Your task to perform on an android device: install app "Expedia: Hotels, Flights & Car" Image 0: 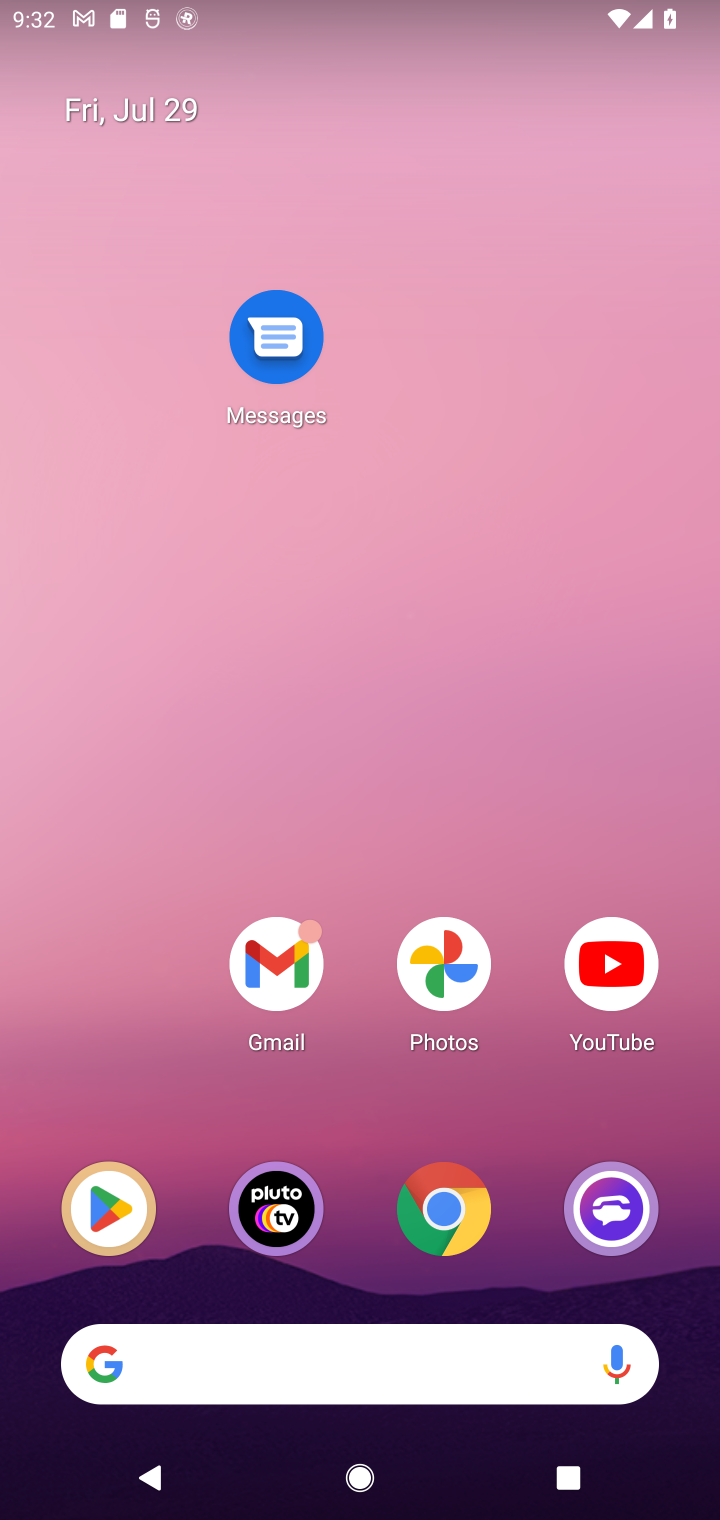
Step 0: press home button
Your task to perform on an android device: install app "Expedia: Hotels, Flights & Car" Image 1: 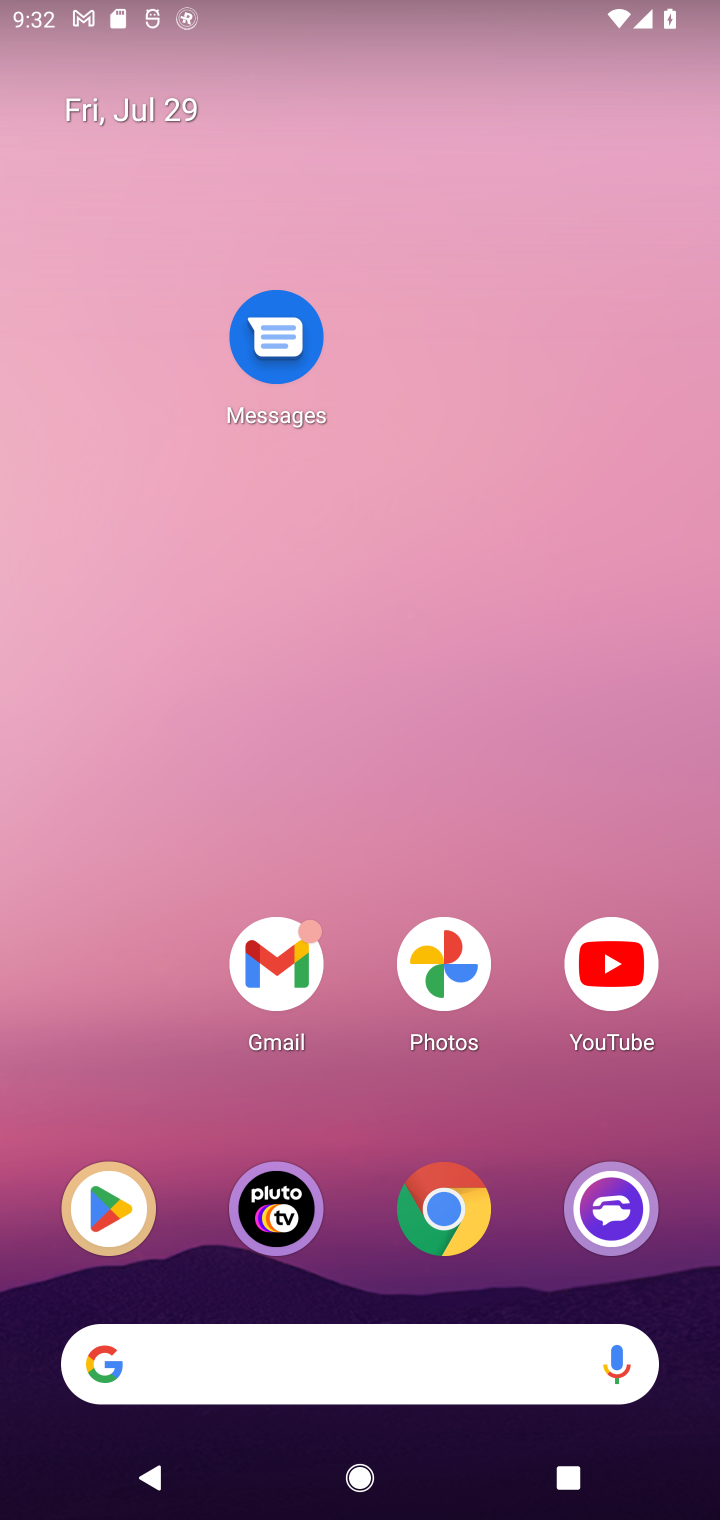
Step 1: drag from (243, 1363) to (444, 278)
Your task to perform on an android device: install app "Expedia: Hotels, Flights & Car" Image 2: 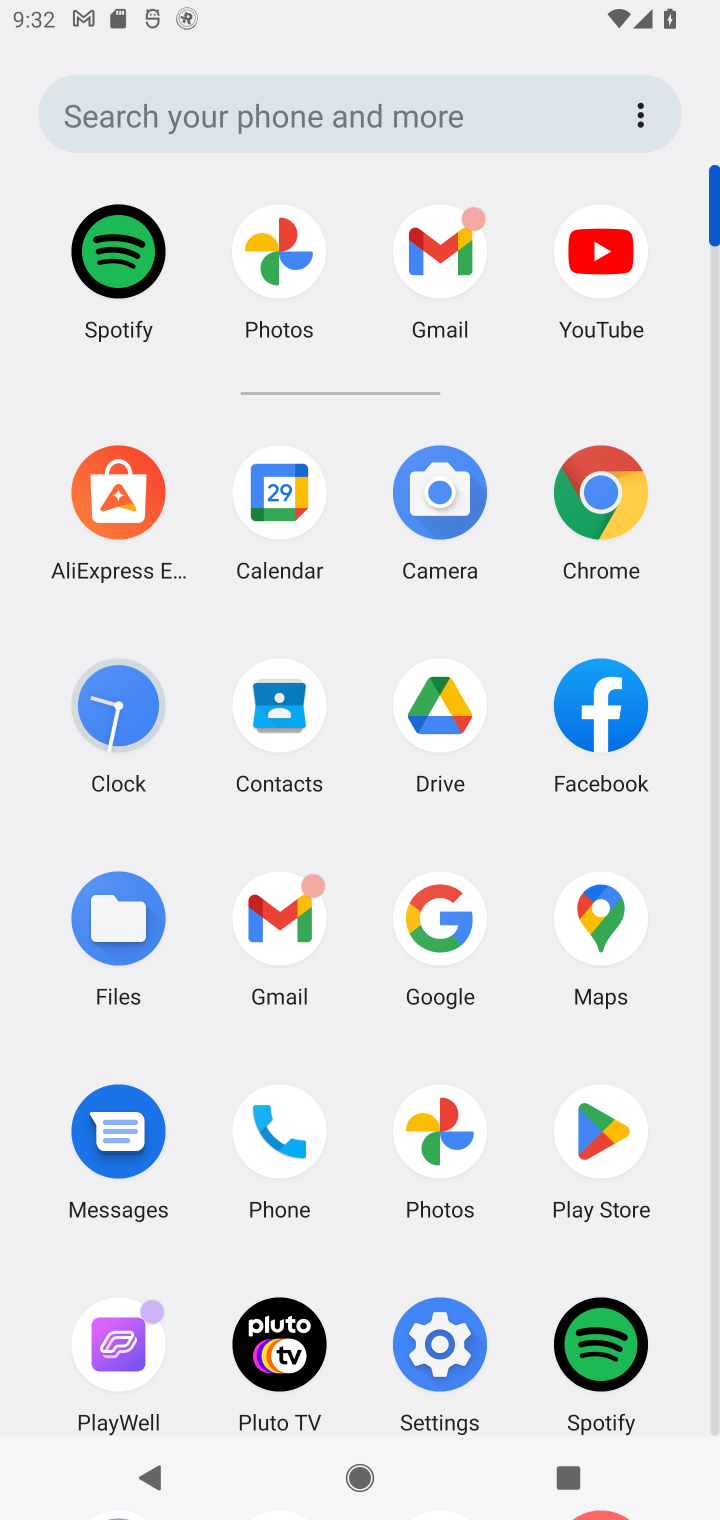
Step 2: drag from (345, 1288) to (360, 912)
Your task to perform on an android device: install app "Expedia: Hotels, Flights & Car" Image 3: 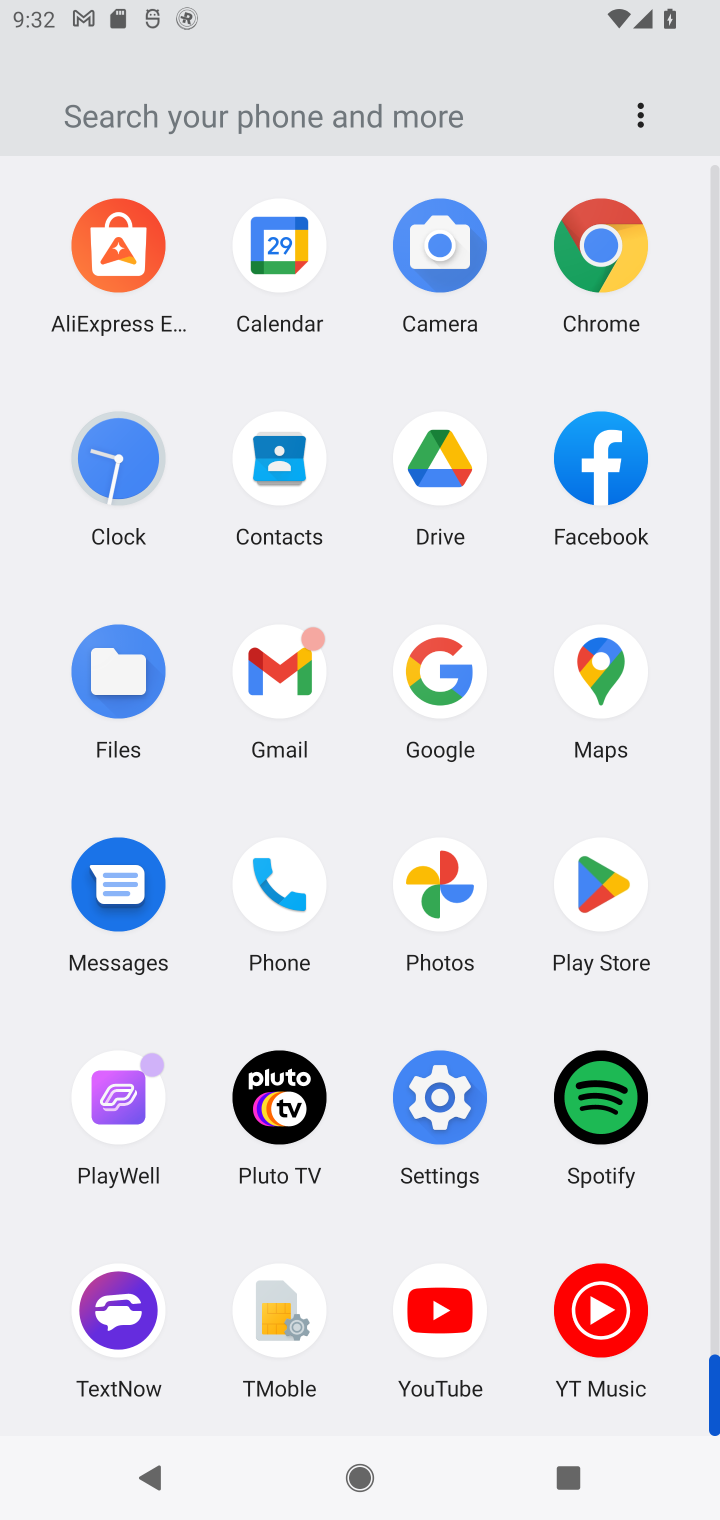
Step 3: click (601, 885)
Your task to perform on an android device: install app "Expedia: Hotels, Flights & Car" Image 4: 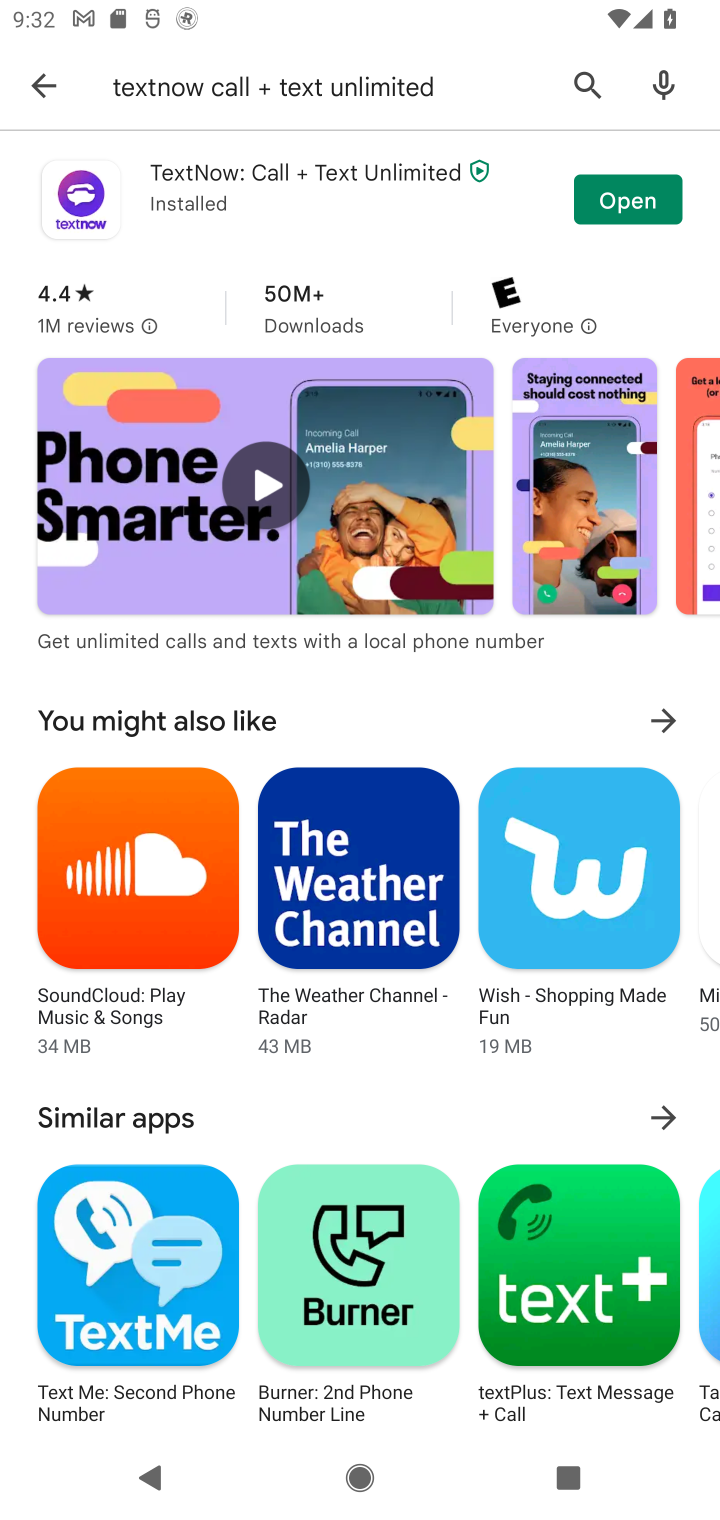
Step 4: click (583, 83)
Your task to perform on an android device: install app "Expedia: Hotels, Flights & Car" Image 5: 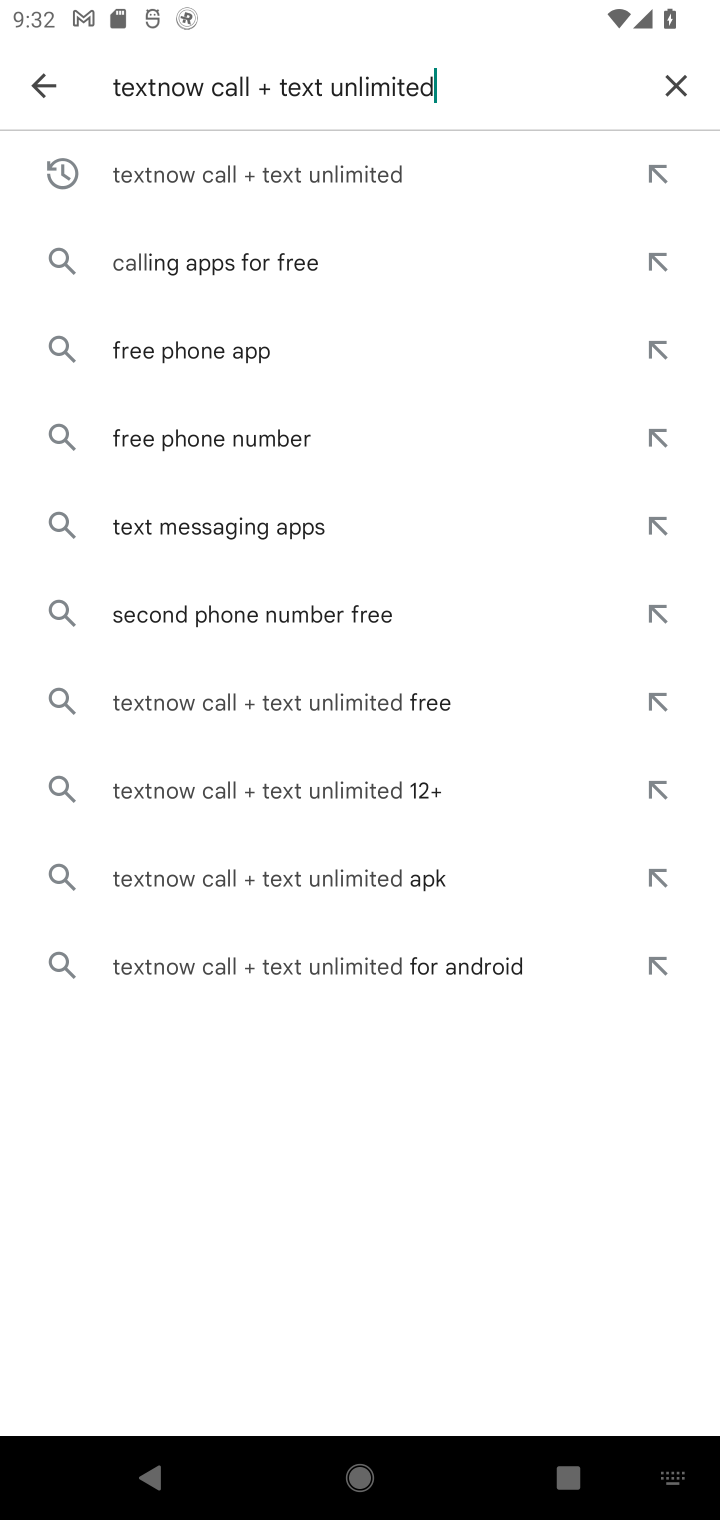
Step 5: click (675, 87)
Your task to perform on an android device: install app "Expedia: Hotels, Flights & Car" Image 6: 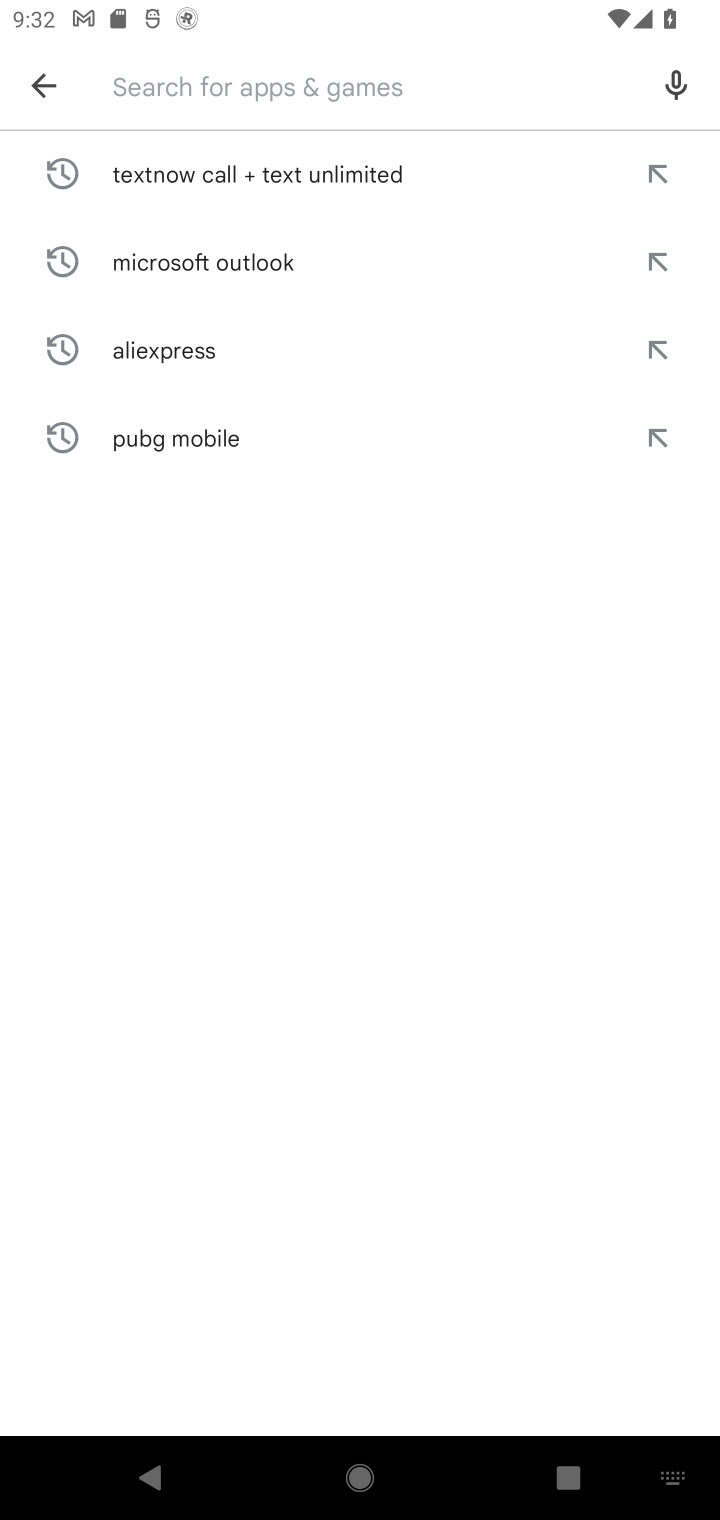
Step 6: click (221, 80)
Your task to perform on an android device: install app "Expedia: Hotels, Flights & Car" Image 7: 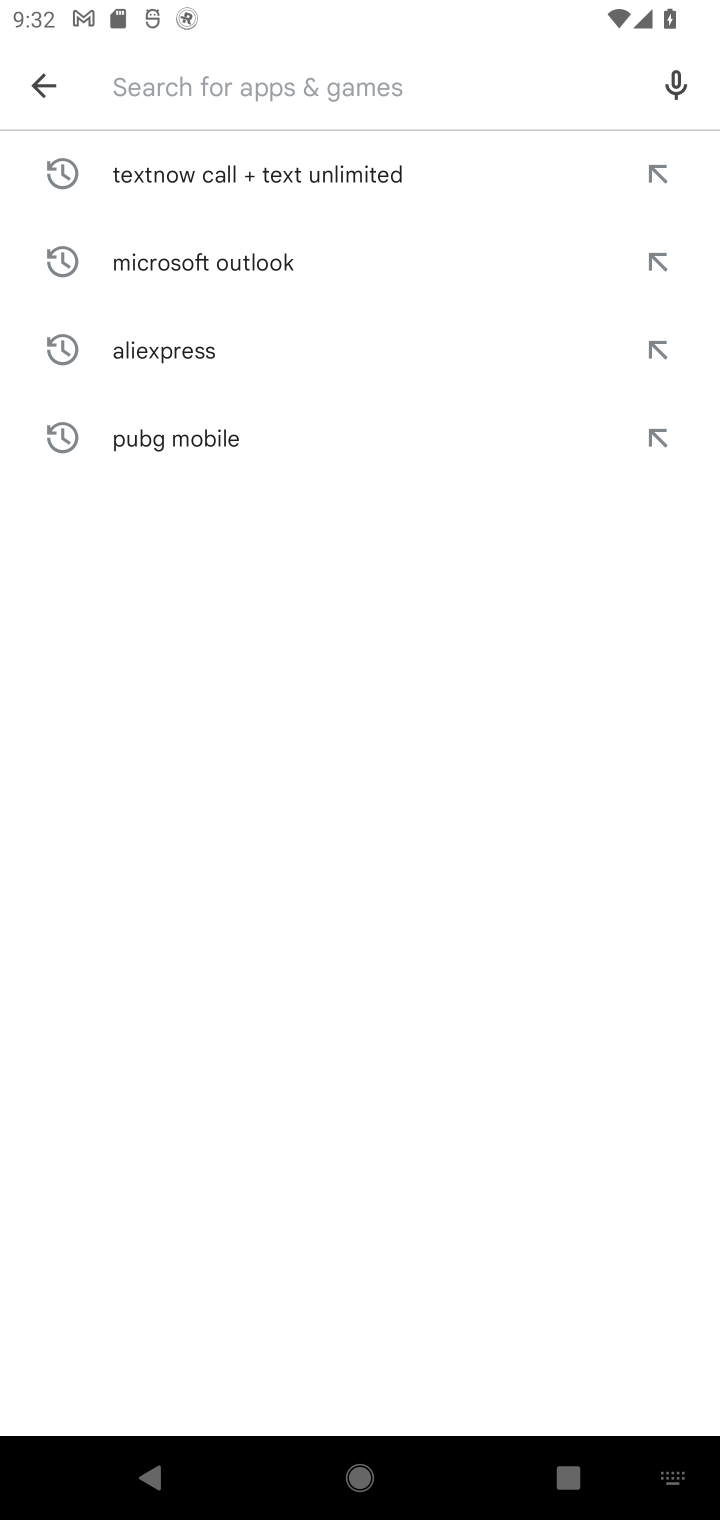
Step 7: type "Expedia: Hotels, Flights & Car"
Your task to perform on an android device: install app "Expedia: Hotels, Flights & Car" Image 8: 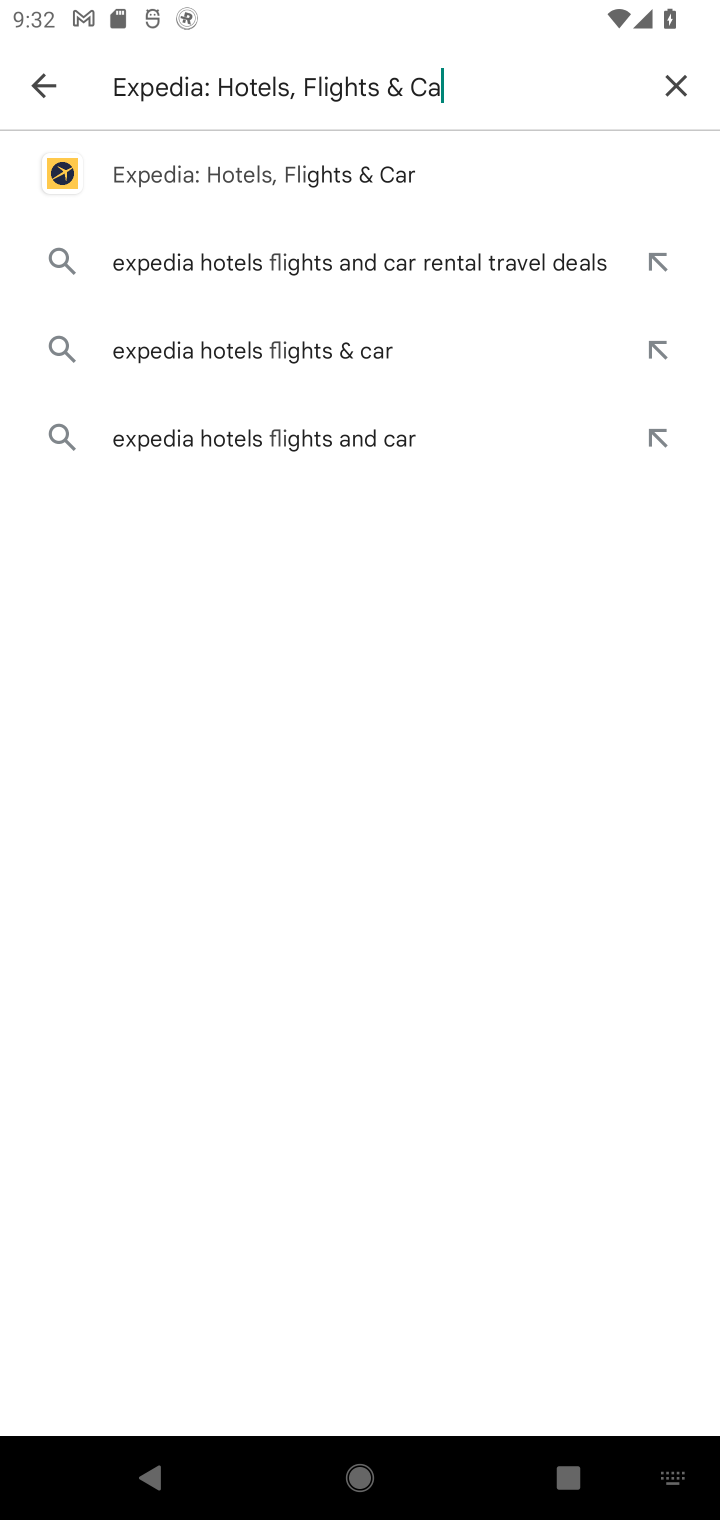
Step 8: type ""
Your task to perform on an android device: install app "Expedia: Hotels, Flights & Car" Image 9: 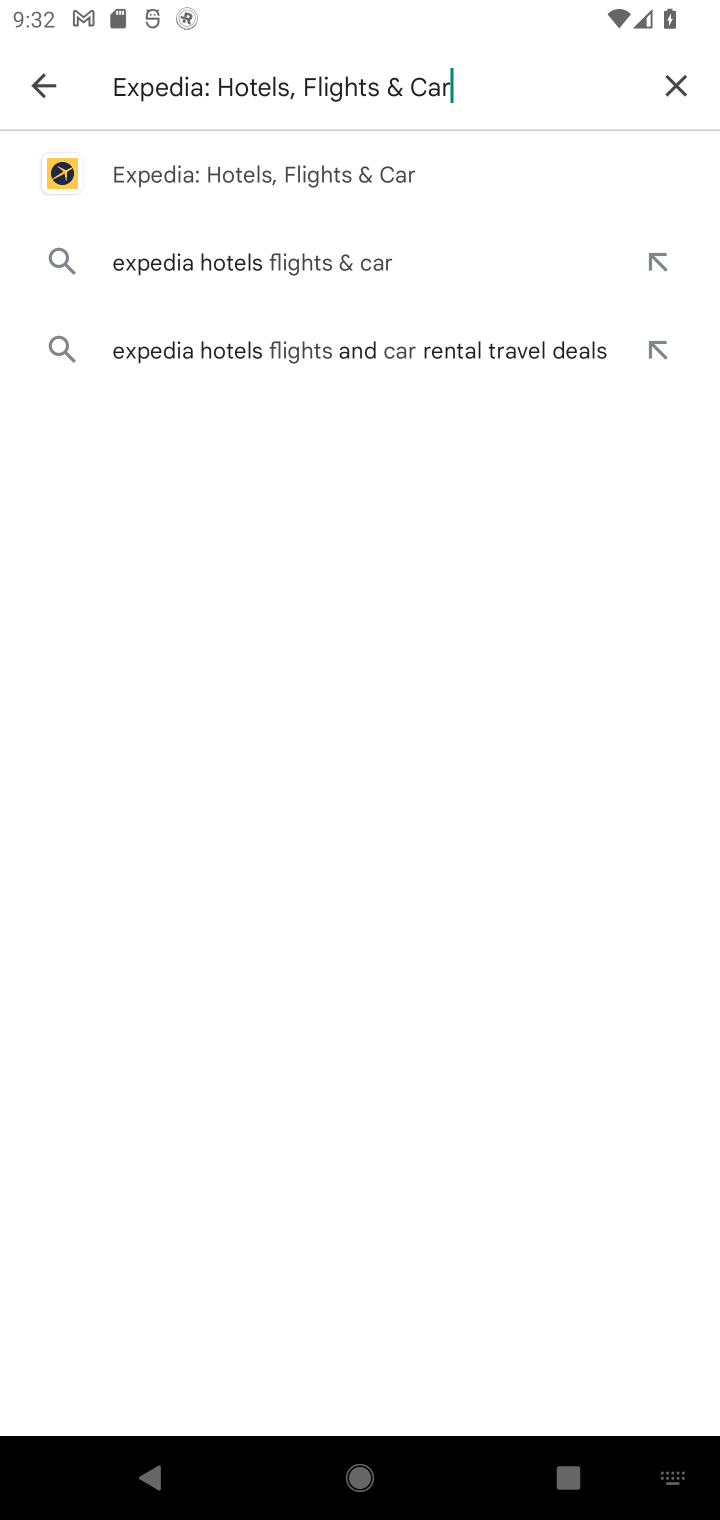
Step 9: click (266, 173)
Your task to perform on an android device: install app "Expedia: Hotels, Flights & Car" Image 10: 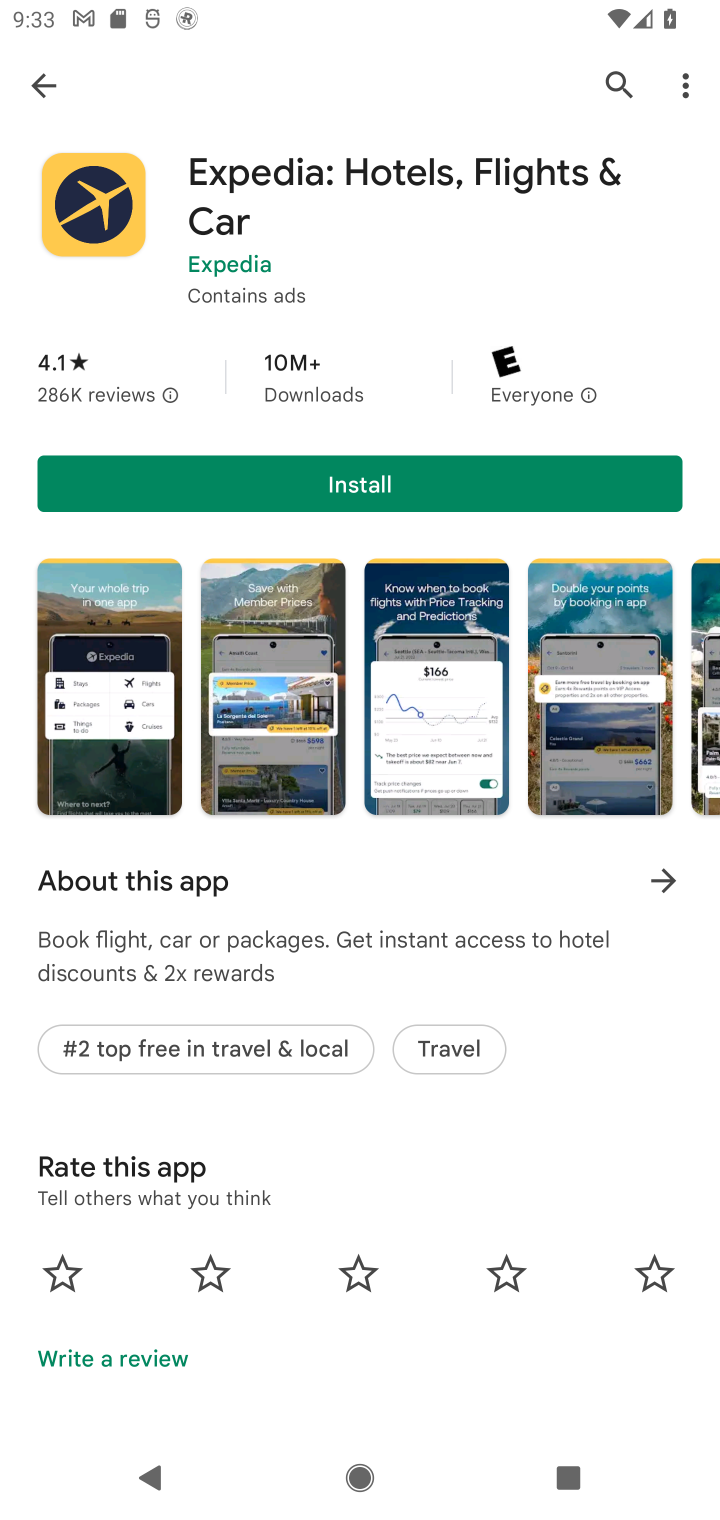
Step 10: click (455, 472)
Your task to perform on an android device: install app "Expedia: Hotels, Flights & Car" Image 11: 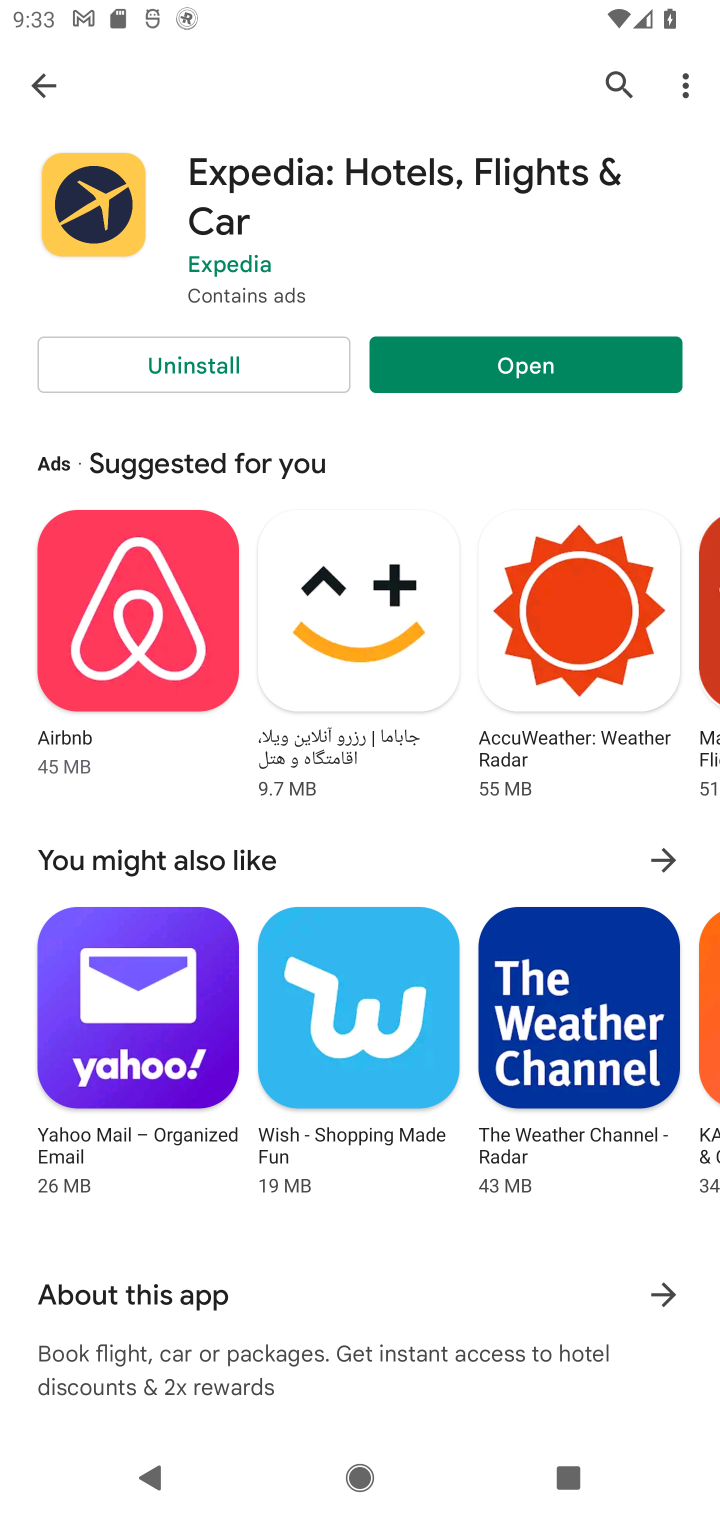
Step 11: task complete